Your task to perform on an android device: toggle notification dots Image 0: 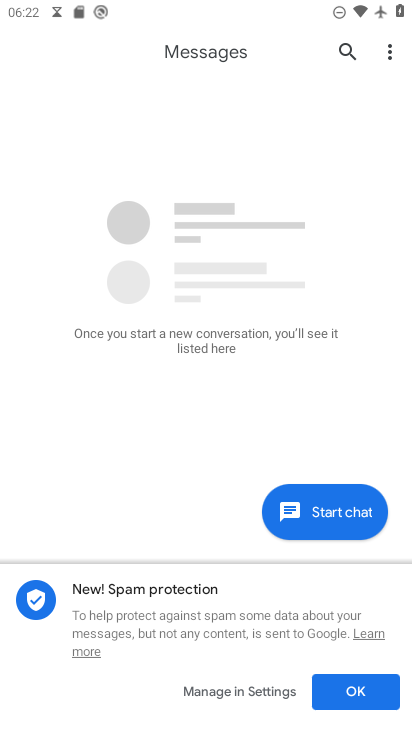
Step 0: press home button
Your task to perform on an android device: toggle notification dots Image 1: 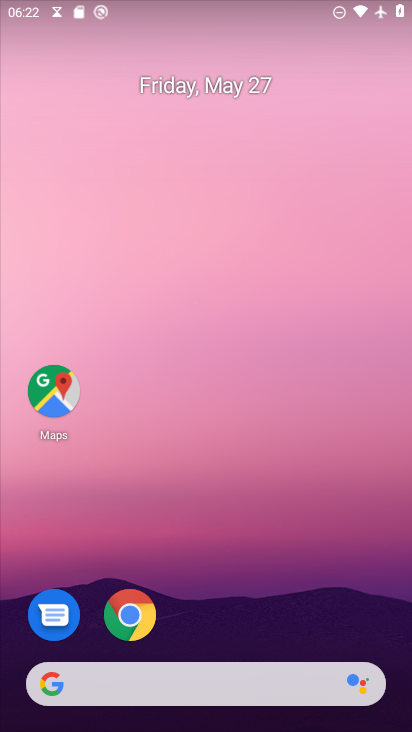
Step 1: drag from (229, 310) to (175, 6)
Your task to perform on an android device: toggle notification dots Image 2: 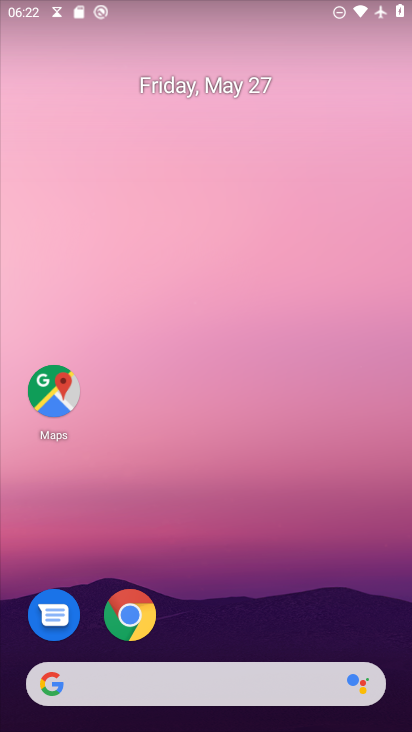
Step 2: drag from (243, 580) to (151, 6)
Your task to perform on an android device: toggle notification dots Image 3: 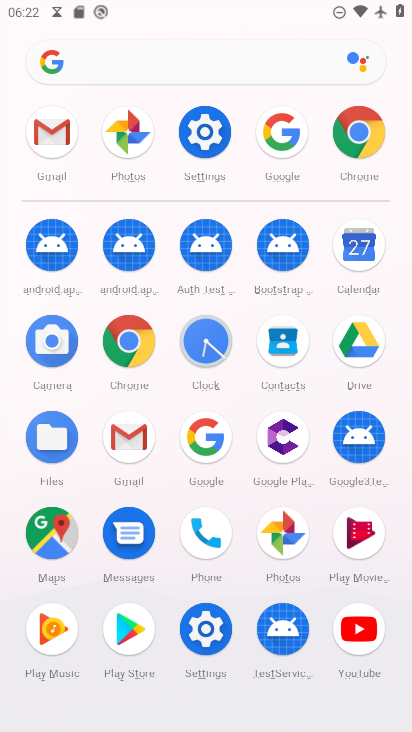
Step 3: click (209, 183)
Your task to perform on an android device: toggle notification dots Image 4: 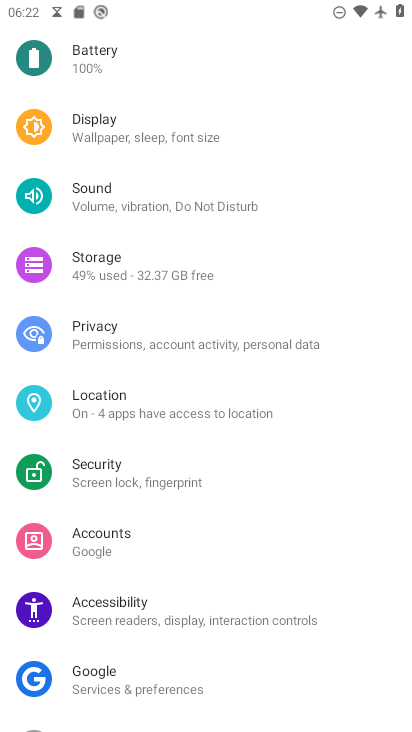
Step 4: drag from (179, 160) to (239, 586)
Your task to perform on an android device: toggle notification dots Image 5: 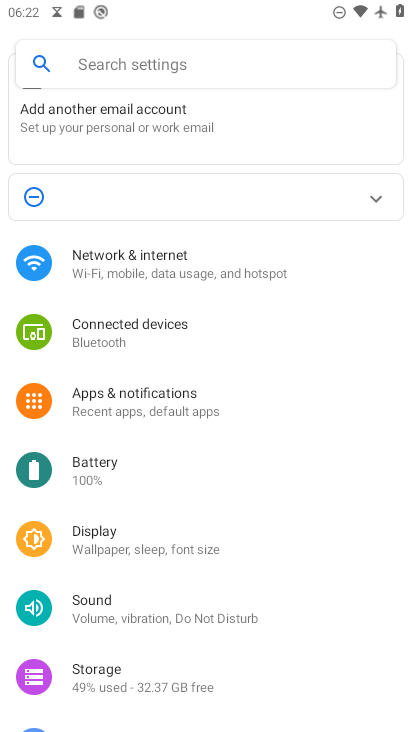
Step 5: click (173, 392)
Your task to perform on an android device: toggle notification dots Image 6: 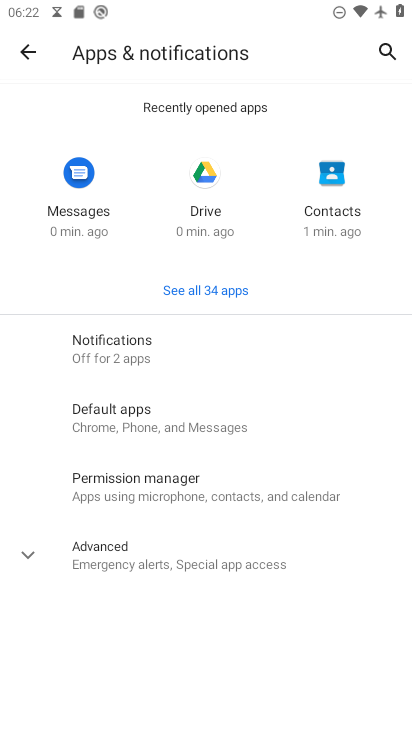
Step 6: click (204, 351)
Your task to perform on an android device: toggle notification dots Image 7: 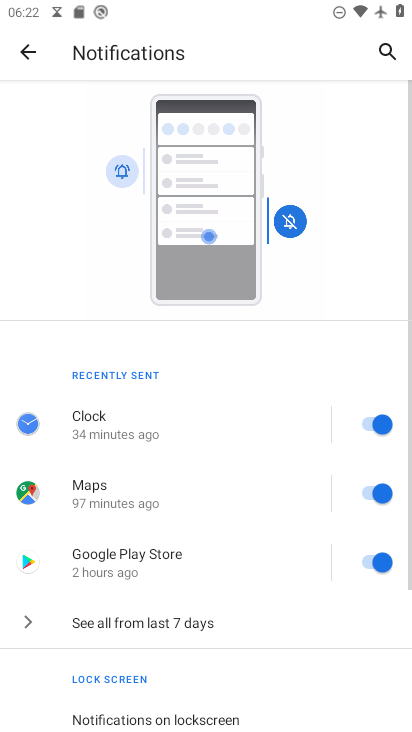
Step 7: drag from (261, 660) to (222, 242)
Your task to perform on an android device: toggle notification dots Image 8: 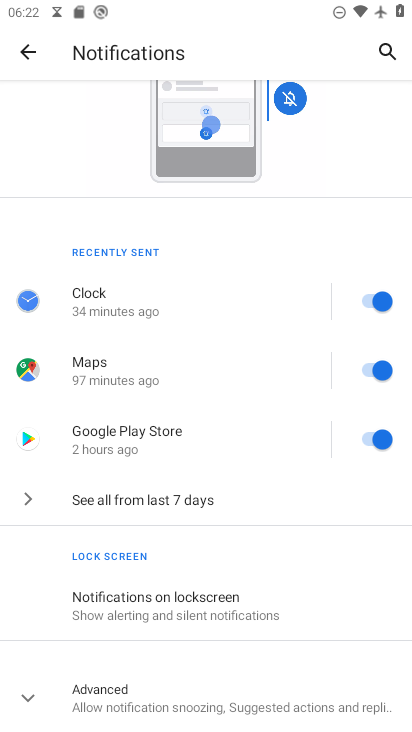
Step 8: click (226, 695)
Your task to perform on an android device: toggle notification dots Image 9: 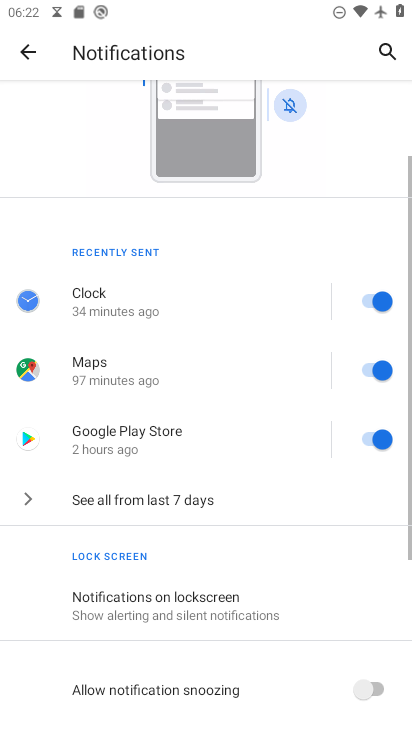
Step 9: drag from (186, 637) to (213, 194)
Your task to perform on an android device: toggle notification dots Image 10: 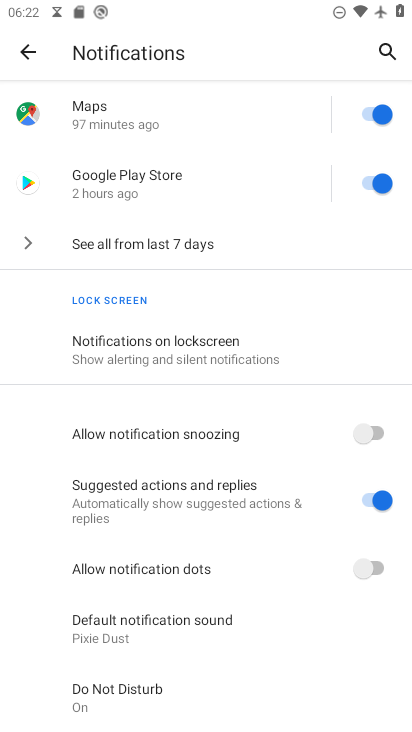
Step 10: click (376, 565)
Your task to perform on an android device: toggle notification dots Image 11: 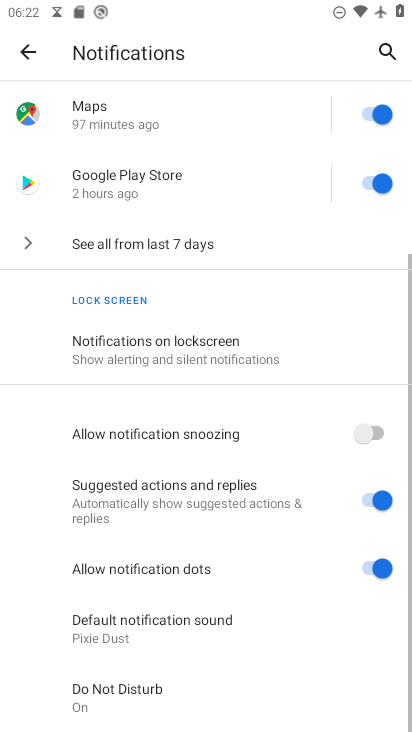
Step 11: task complete